Your task to perform on an android device: turn off notifications in google photos Image 0: 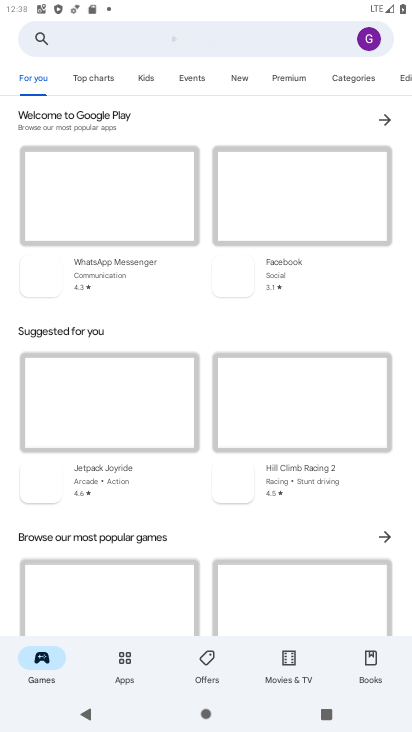
Step 0: press home button
Your task to perform on an android device: turn off notifications in google photos Image 1: 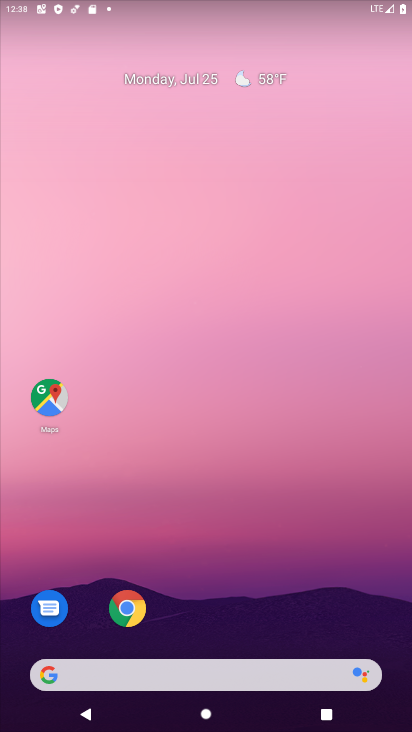
Step 1: drag from (159, 680) to (226, 0)
Your task to perform on an android device: turn off notifications in google photos Image 2: 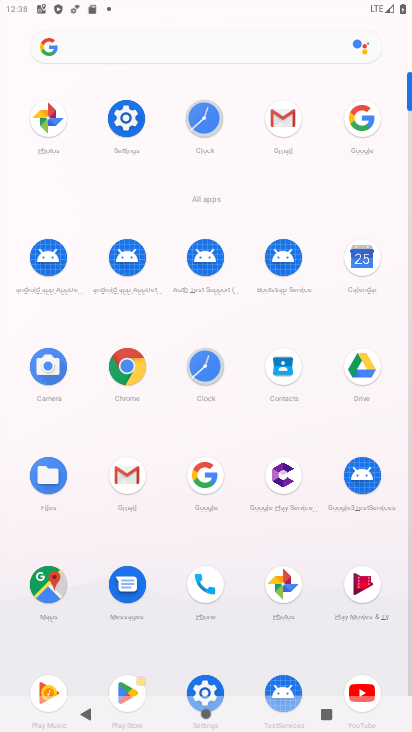
Step 2: click (286, 584)
Your task to perform on an android device: turn off notifications in google photos Image 3: 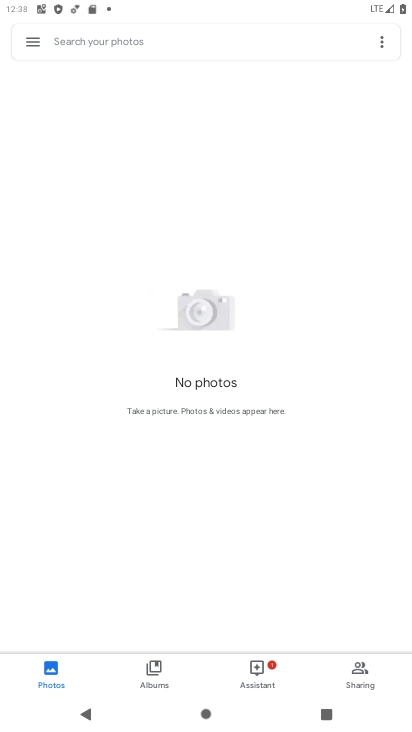
Step 3: click (37, 42)
Your task to perform on an android device: turn off notifications in google photos Image 4: 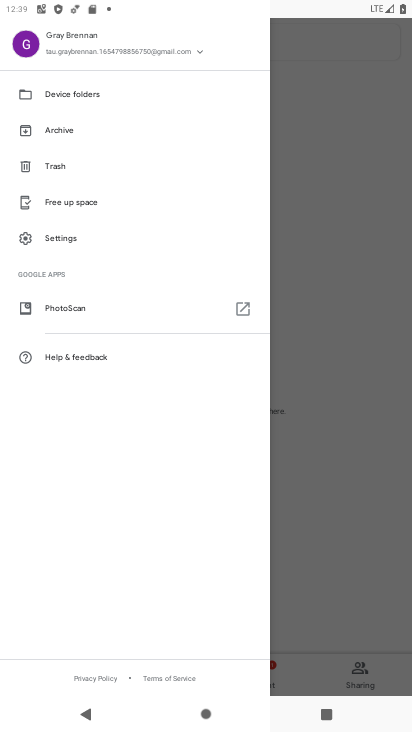
Step 4: click (71, 238)
Your task to perform on an android device: turn off notifications in google photos Image 5: 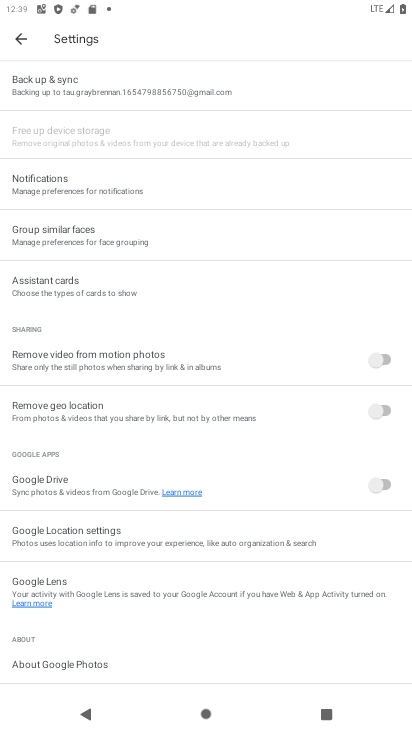
Step 5: click (39, 189)
Your task to perform on an android device: turn off notifications in google photos Image 6: 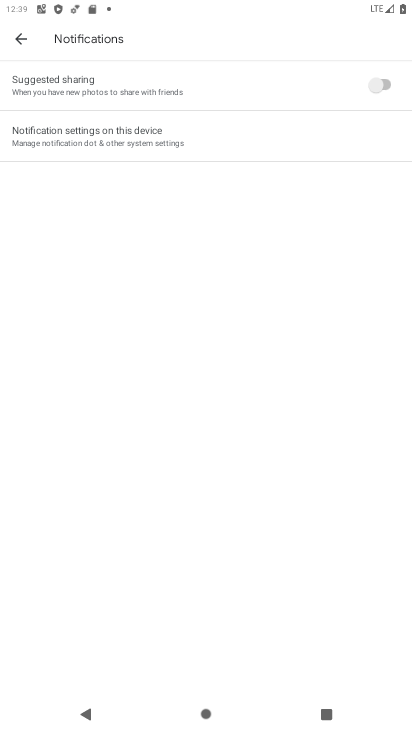
Step 6: click (124, 139)
Your task to perform on an android device: turn off notifications in google photos Image 7: 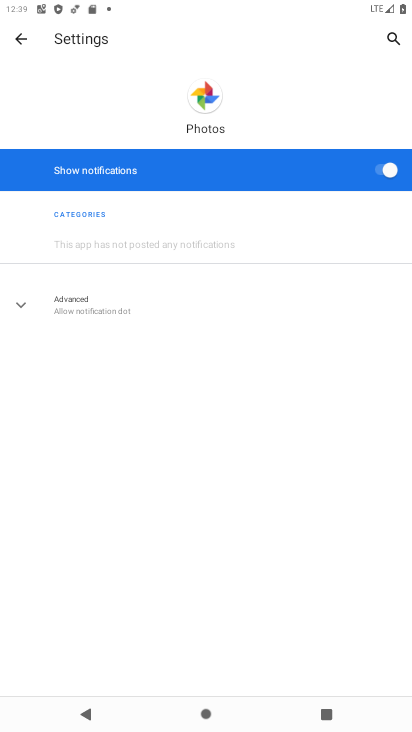
Step 7: click (387, 171)
Your task to perform on an android device: turn off notifications in google photos Image 8: 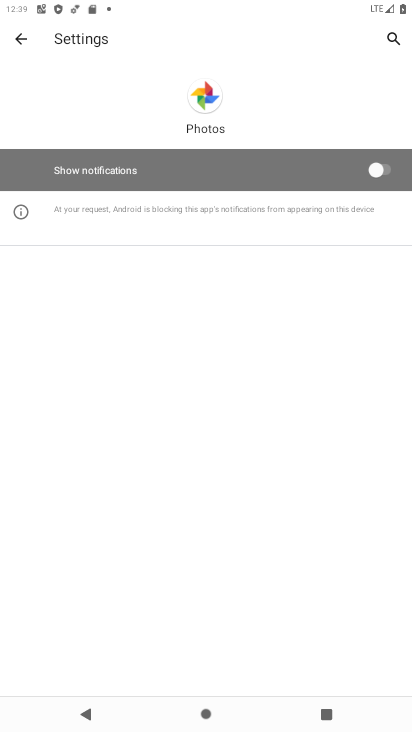
Step 8: task complete